Your task to perform on an android device: stop showing notifications on the lock screen Image 0: 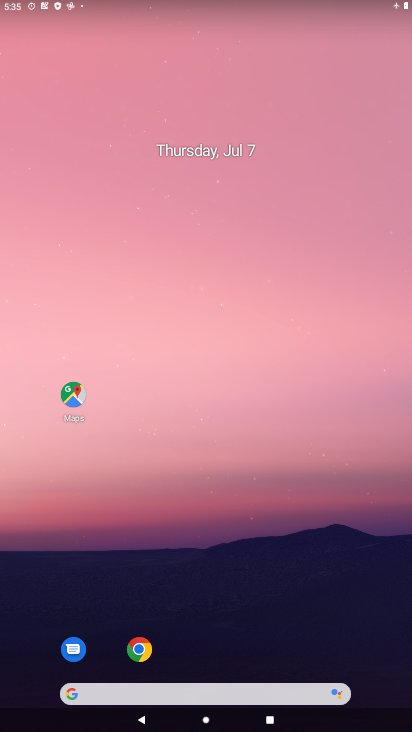
Step 0: drag from (370, 667) to (248, 0)
Your task to perform on an android device: stop showing notifications on the lock screen Image 1: 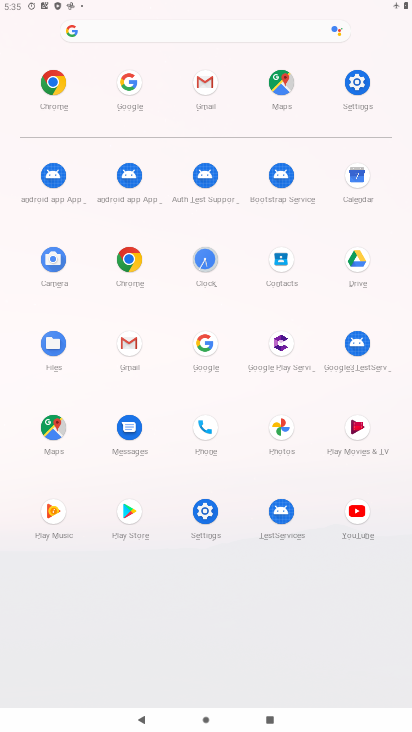
Step 1: click (357, 80)
Your task to perform on an android device: stop showing notifications on the lock screen Image 2: 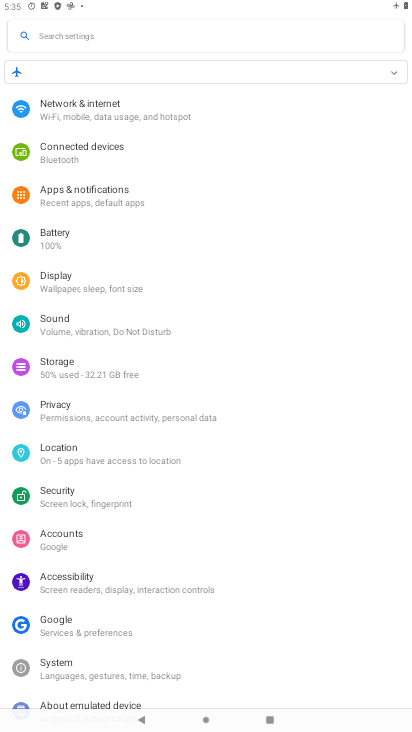
Step 2: click (61, 201)
Your task to perform on an android device: stop showing notifications on the lock screen Image 3: 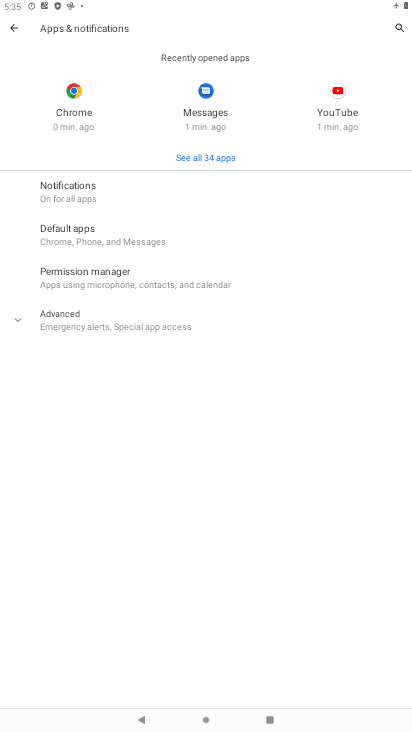
Step 3: click (69, 194)
Your task to perform on an android device: stop showing notifications on the lock screen Image 4: 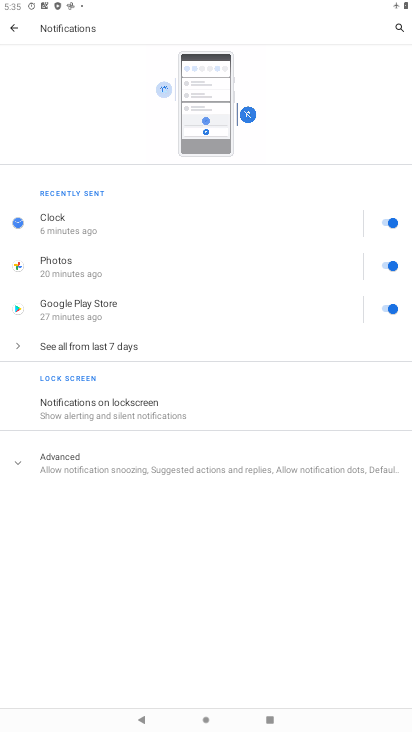
Step 4: click (148, 412)
Your task to perform on an android device: stop showing notifications on the lock screen Image 5: 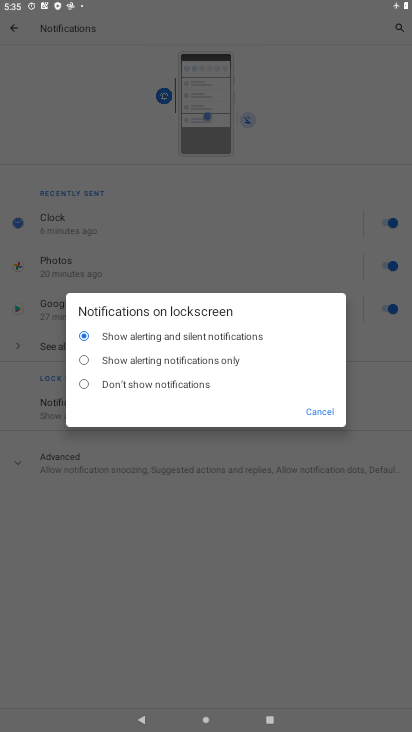
Step 5: click (85, 390)
Your task to perform on an android device: stop showing notifications on the lock screen Image 6: 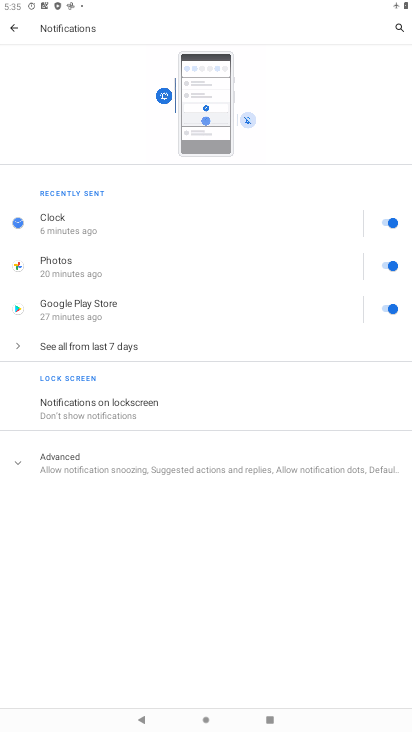
Step 6: task complete